Your task to perform on an android device: make emails show in primary in the gmail app Image 0: 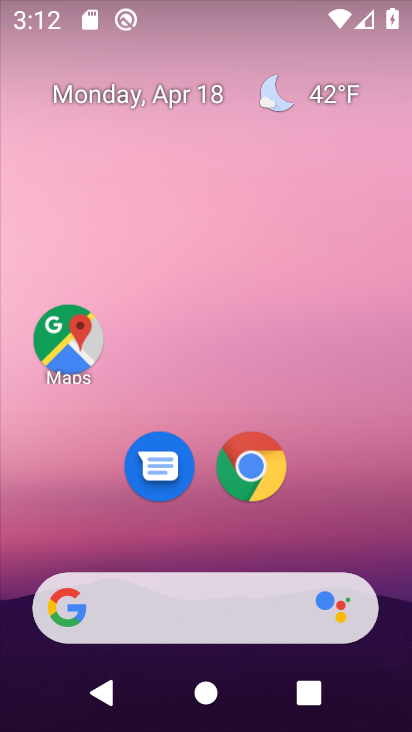
Step 0: click (283, 83)
Your task to perform on an android device: make emails show in primary in the gmail app Image 1: 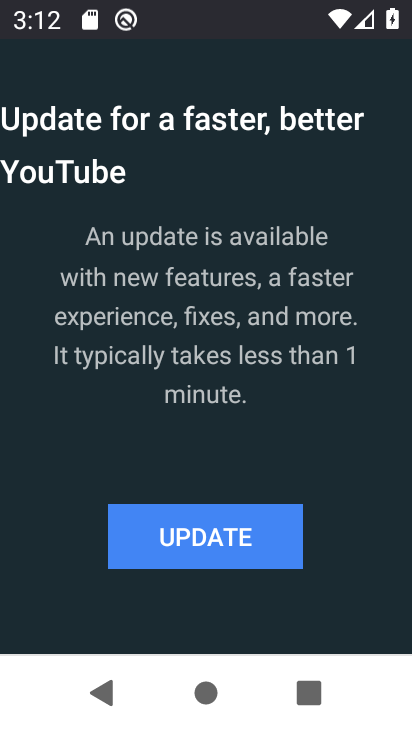
Step 1: press home button
Your task to perform on an android device: make emails show in primary in the gmail app Image 2: 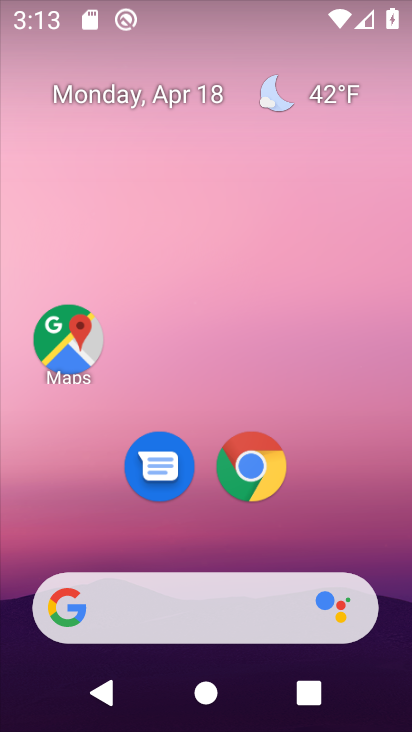
Step 2: drag from (299, 492) to (310, 184)
Your task to perform on an android device: make emails show in primary in the gmail app Image 3: 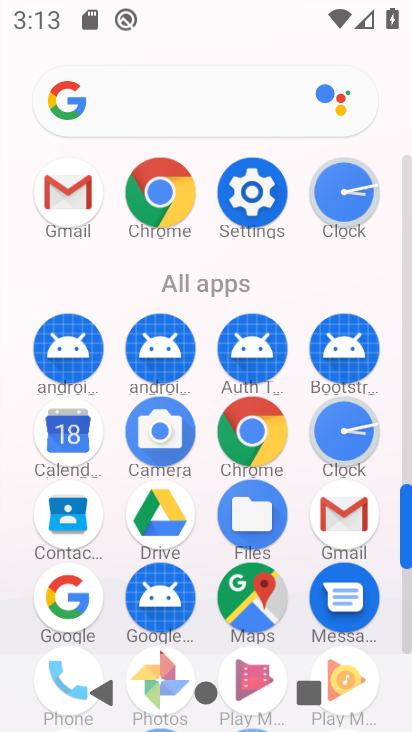
Step 3: click (362, 513)
Your task to perform on an android device: make emails show in primary in the gmail app Image 4: 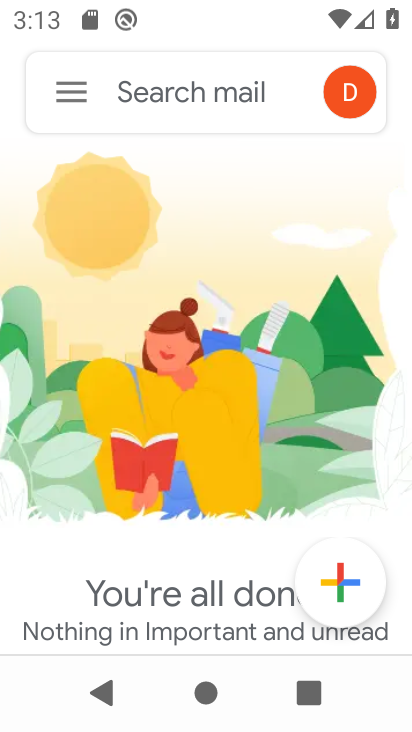
Step 4: click (70, 101)
Your task to perform on an android device: make emails show in primary in the gmail app Image 5: 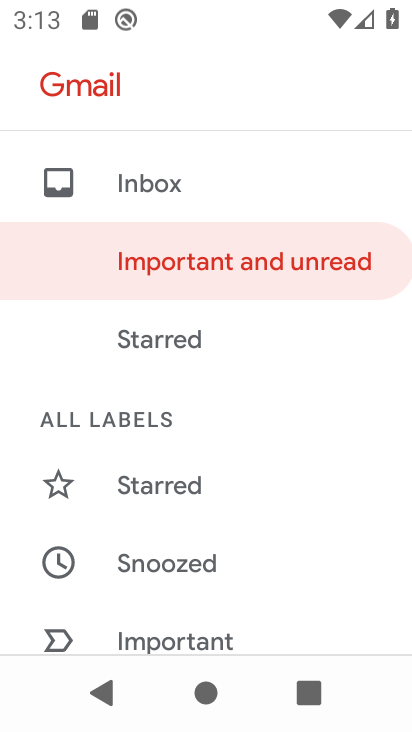
Step 5: click (176, 192)
Your task to perform on an android device: make emails show in primary in the gmail app Image 6: 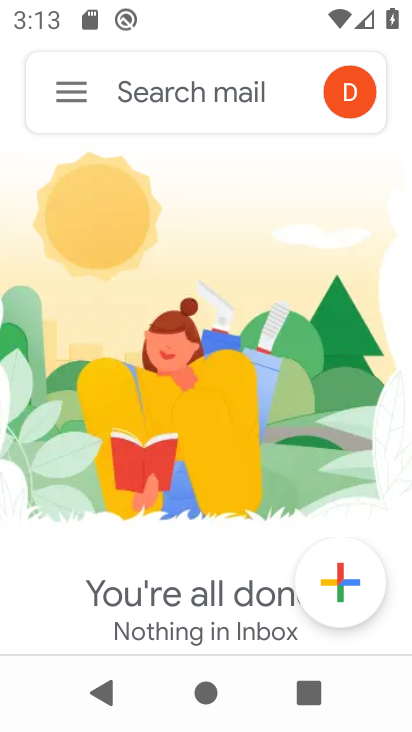
Step 6: drag from (67, 89) to (107, 352)
Your task to perform on an android device: make emails show in primary in the gmail app Image 7: 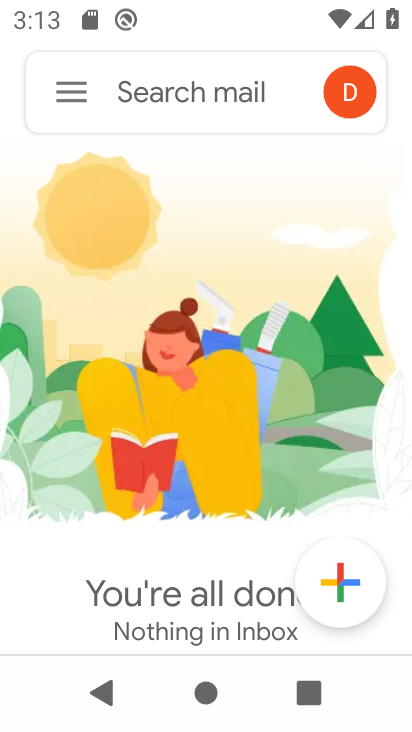
Step 7: click (60, 81)
Your task to perform on an android device: make emails show in primary in the gmail app Image 8: 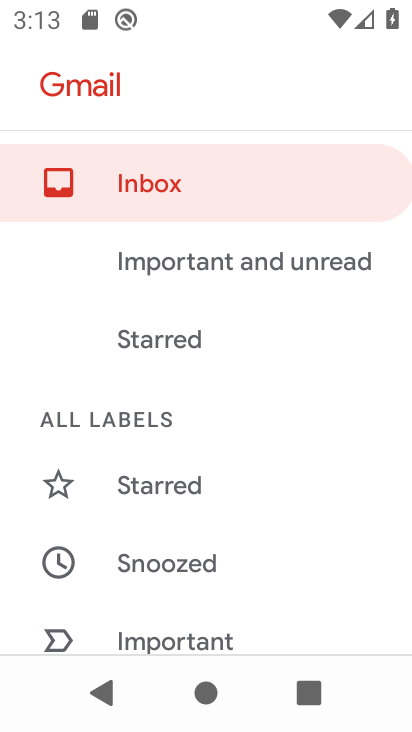
Step 8: drag from (201, 617) to (205, 201)
Your task to perform on an android device: make emails show in primary in the gmail app Image 9: 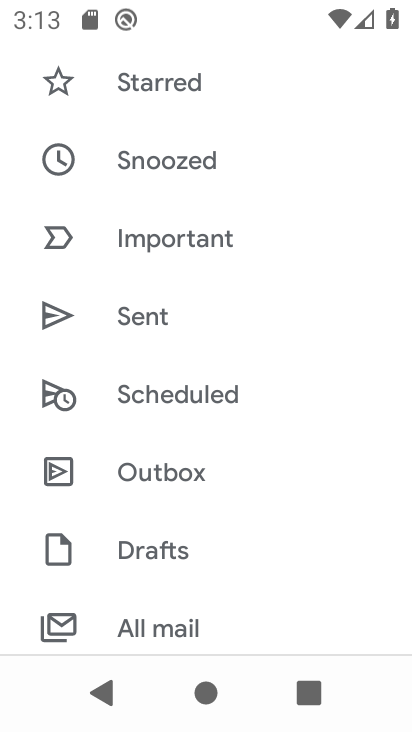
Step 9: drag from (246, 576) to (251, 206)
Your task to perform on an android device: make emails show in primary in the gmail app Image 10: 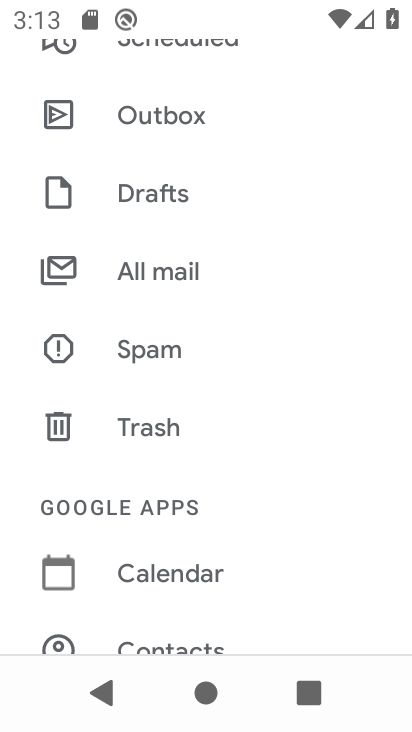
Step 10: drag from (193, 584) to (221, 236)
Your task to perform on an android device: make emails show in primary in the gmail app Image 11: 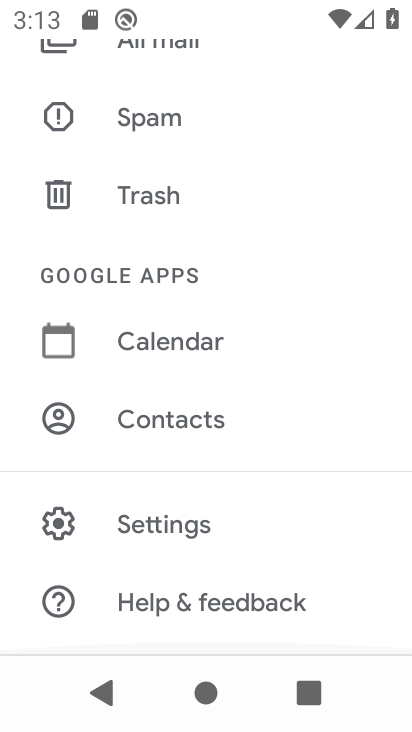
Step 11: click (184, 538)
Your task to perform on an android device: make emails show in primary in the gmail app Image 12: 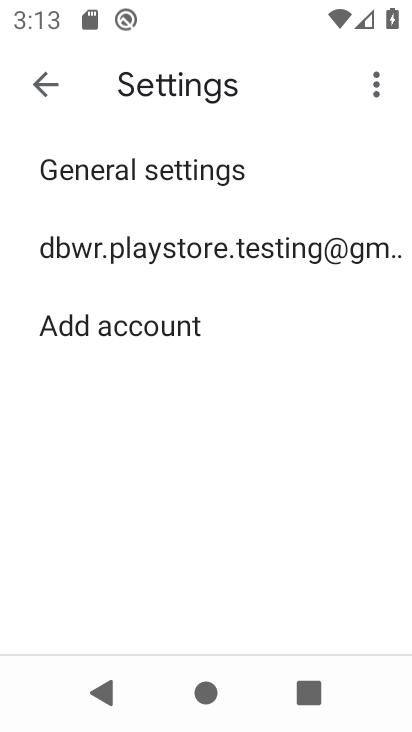
Step 12: click (176, 247)
Your task to perform on an android device: make emails show in primary in the gmail app Image 13: 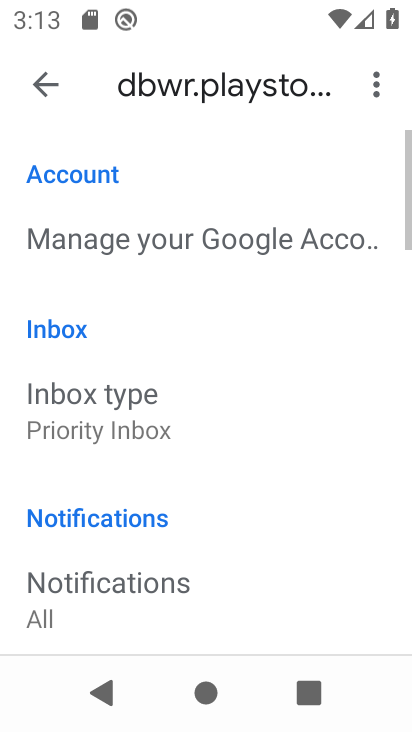
Step 13: click (124, 429)
Your task to perform on an android device: make emails show in primary in the gmail app Image 14: 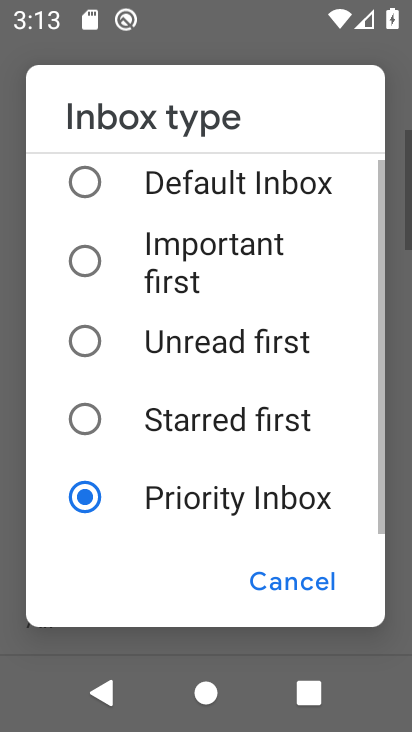
Step 14: click (181, 186)
Your task to perform on an android device: make emails show in primary in the gmail app Image 15: 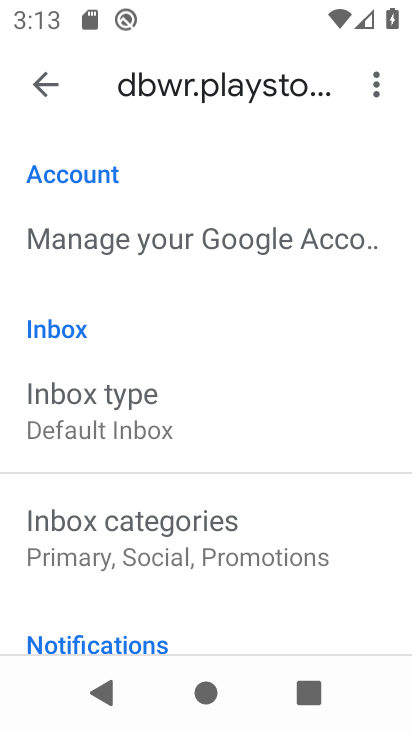
Step 15: press back button
Your task to perform on an android device: make emails show in primary in the gmail app Image 16: 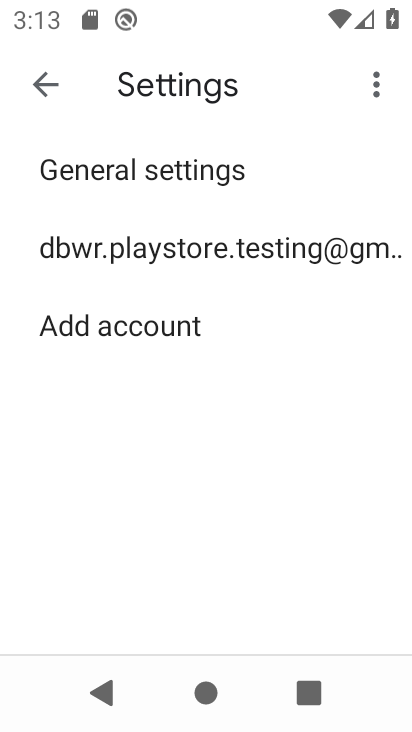
Step 16: press back button
Your task to perform on an android device: make emails show in primary in the gmail app Image 17: 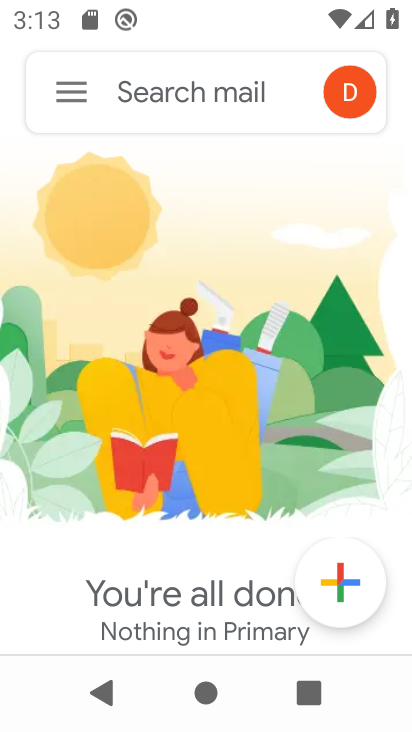
Step 17: click (73, 93)
Your task to perform on an android device: make emails show in primary in the gmail app Image 18: 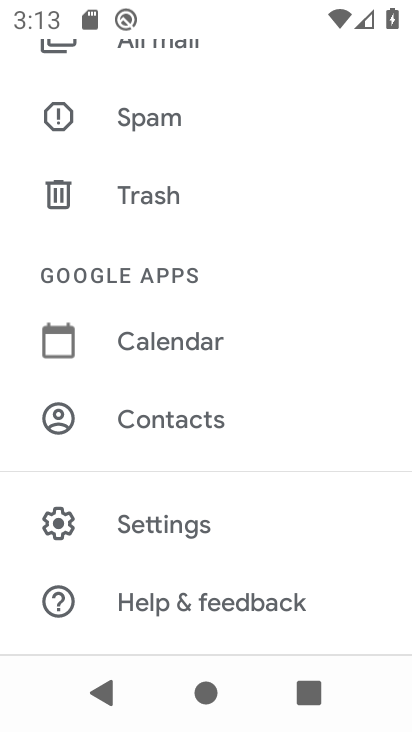
Step 18: drag from (225, 114) to (215, 586)
Your task to perform on an android device: make emails show in primary in the gmail app Image 19: 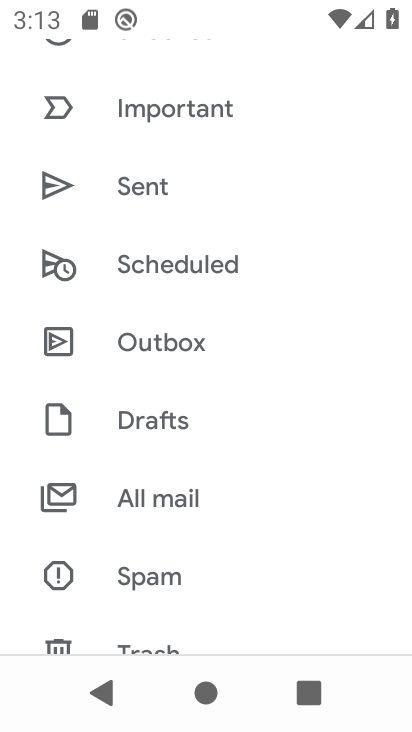
Step 19: drag from (238, 129) to (194, 554)
Your task to perform on an android device: make emails show in primary in the gmail app Image 20: 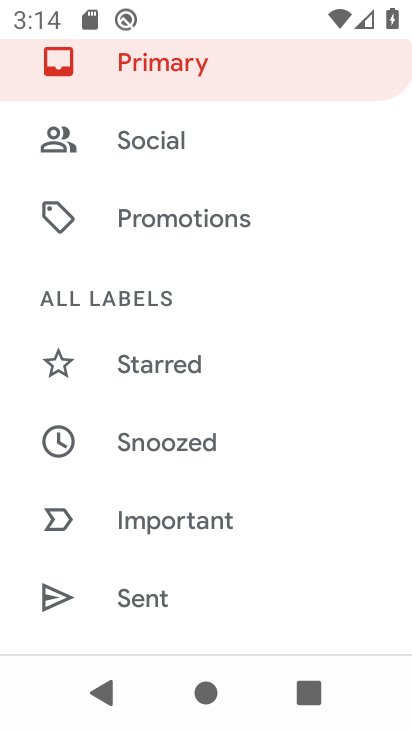
Step 20: drag from (254, 99) to (230, 347)
Your task to perform on an android device: make emails show in primary in the gmail app Image 21: 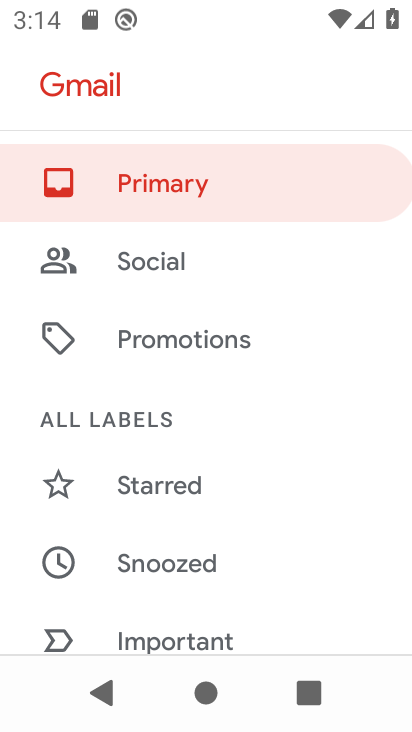
Step 21: click (163, 65)
Your task to perform on an android device: make emails show in primary in the gmail app Image 22: 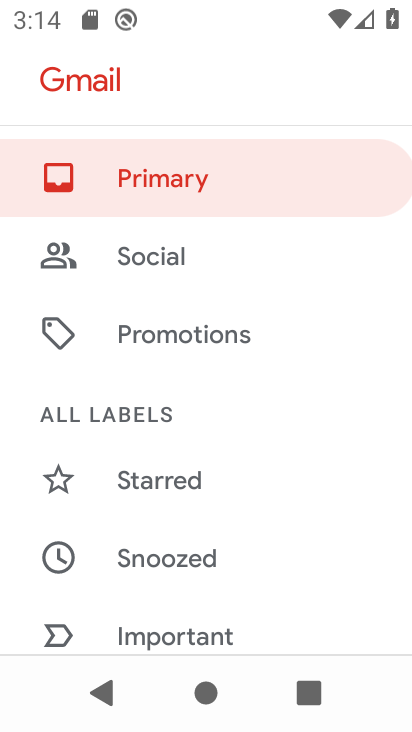
Step 22: click (163, 189)
Your task to perform on an android device: make emails show in primary in the gmail app Image 23: 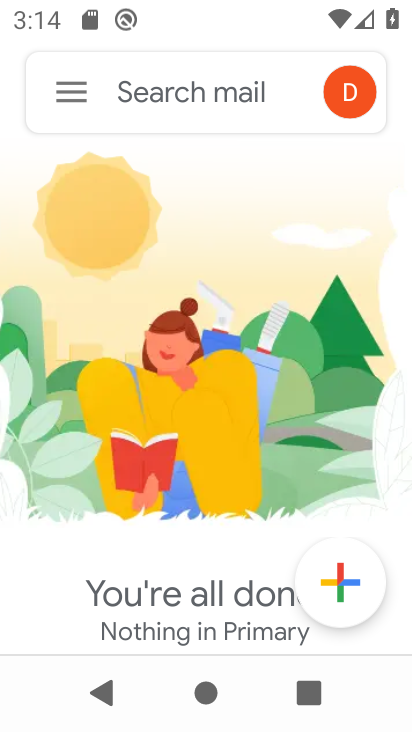
Step 23: task complete